Your task to perform on an android device: turn smart compose on in the gmail app Image 0: 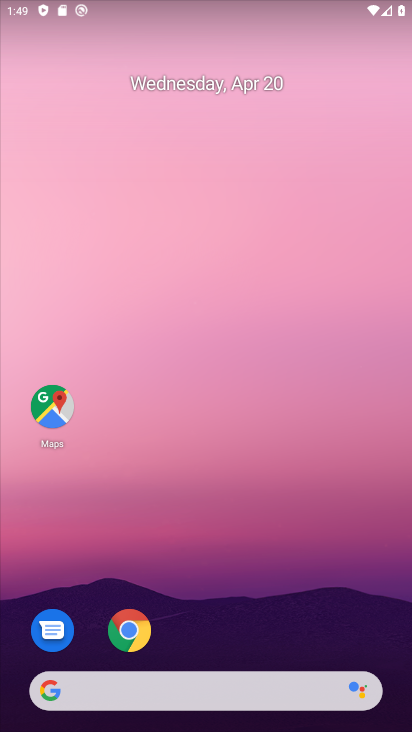
Step 0: drag from (307, 582) to (200, 133)
Your task to perform on an android device: turn smart compose on in the gmail app Image 1: 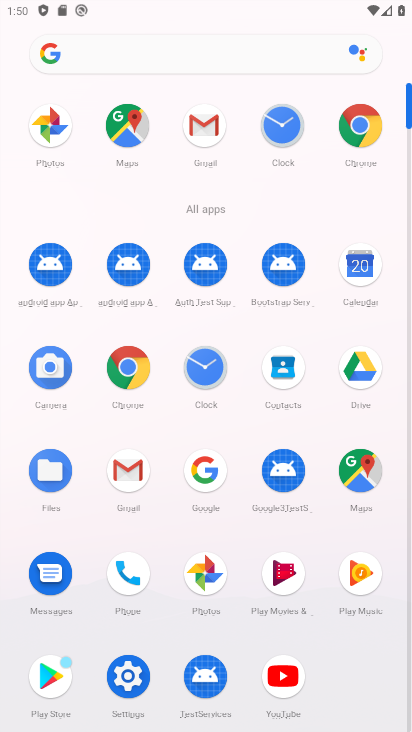
Step 1: click (125, 462)
Your task to perform on an android device: turn smart compose on in the gmail app Image 2: 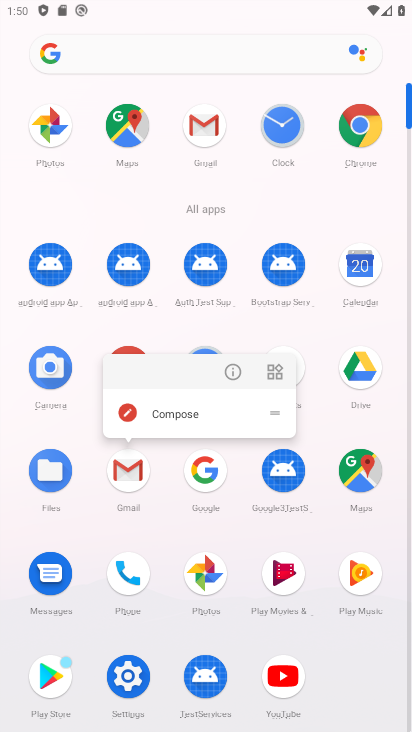
Step 2: click (125, 462)
Your task to perform on an android device: turn smart compose on in the gmail app Image 3: 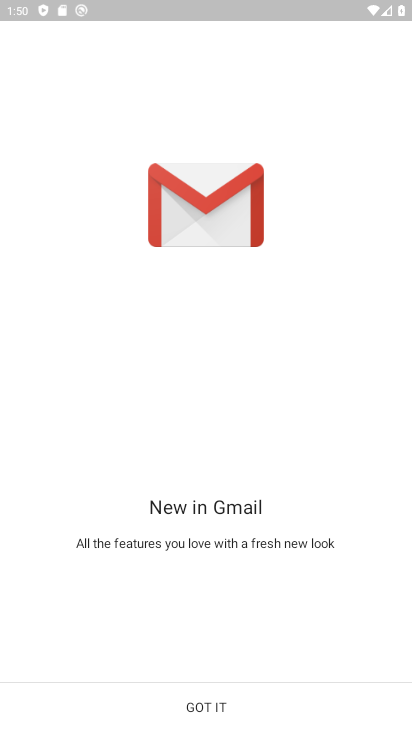
Step 3: click (180, 710)
Your task to perform on an android device: turn smart compose on in the gmail app Image 4: 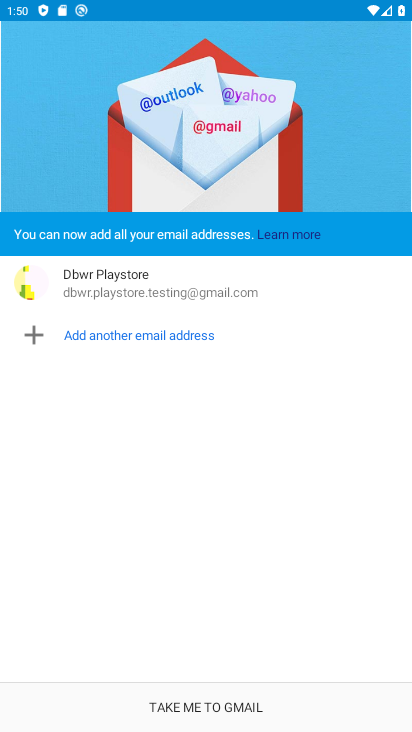
Step 4: click (239, 702)
Your task to perform on an android device: turn smart compose on in the gmail app Image 5: 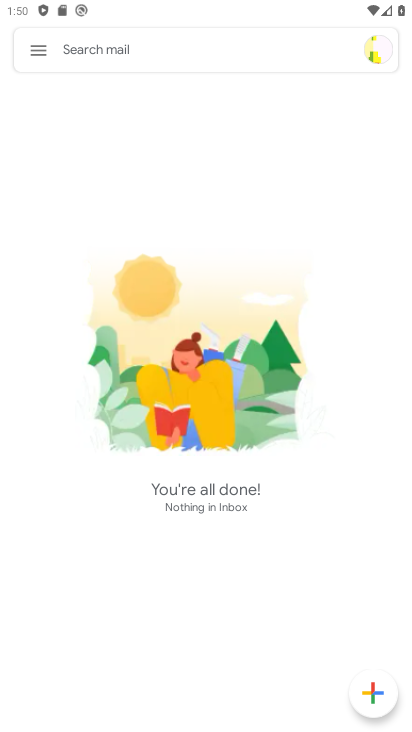
Step 5: click (37, 53)
Your task to perform on an android device: turn smart compose on in the gmail app Image 6: 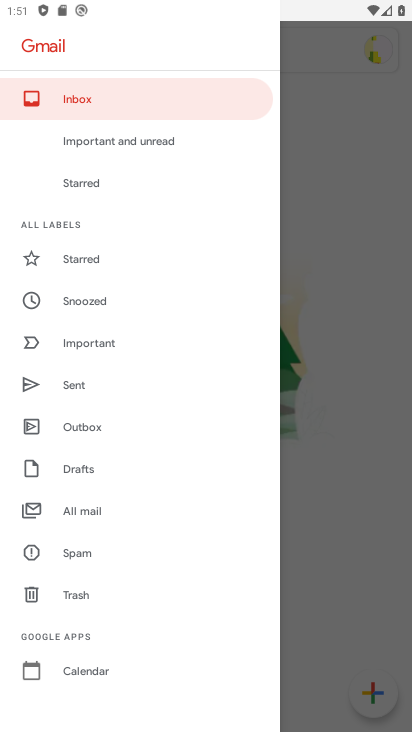
Step 6: drag from (172, 474) to (162, 233)
Your task to perform on an android device: turn smart compose on in the gmail app Image 7: 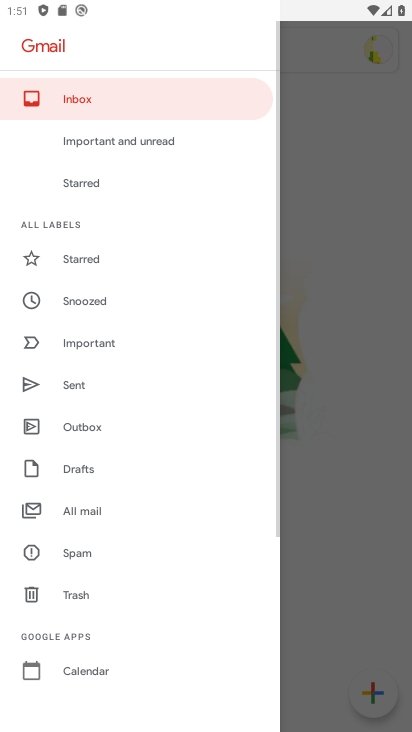
Step 7: drag from (179, 406) to (180, 97)
Your task to perform on an android device: turn smart compose on in the gmail app Image 8: 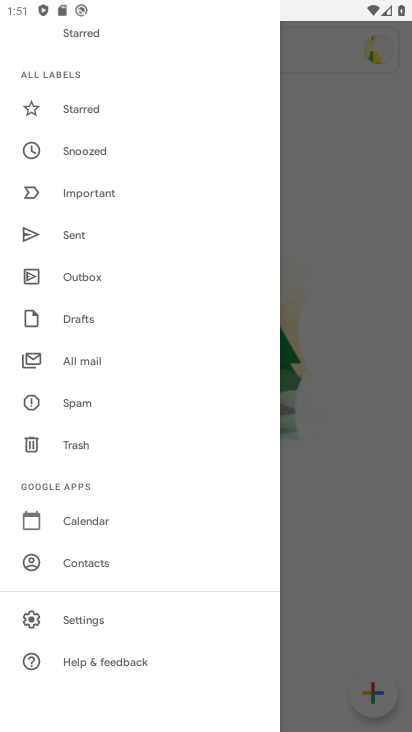
Step 8: click (105, 606)
Your task to perform on an android device: turn smart compose on in the gmail app Image 9: 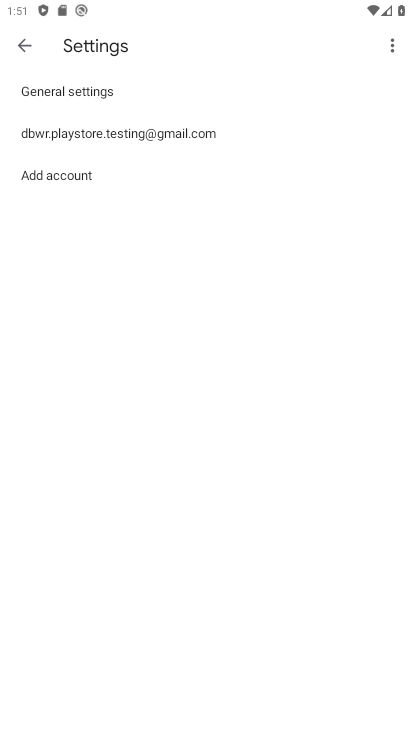
Step 9: click (204, 120)
Your task to perform on an android device: turn smart compose on in the gmail app Image 10: 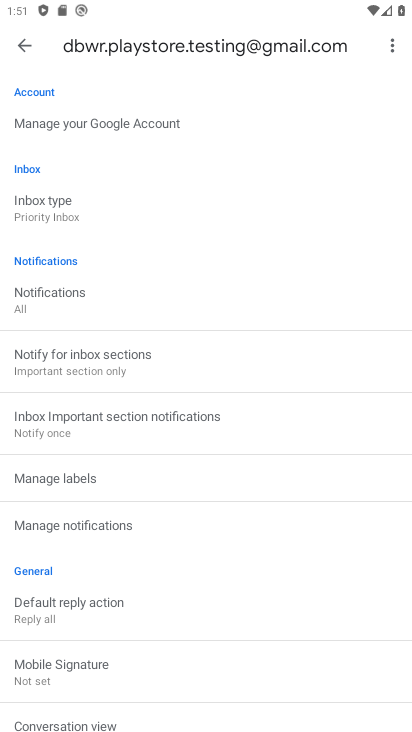
Step 10: task complete